Your task to perform on an android device: What's the weather going to be tomorrow? Image 0: 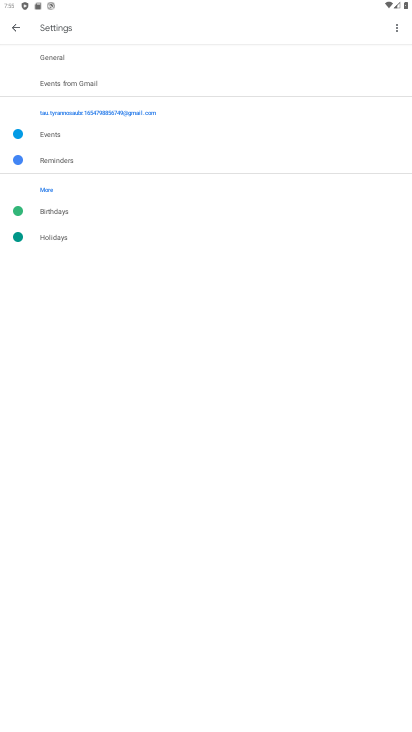
Step 0: drag from (257, 627) to (202, 40)
Your task to perform on an android device: What's the weather going to be tomorrow? Image 1: 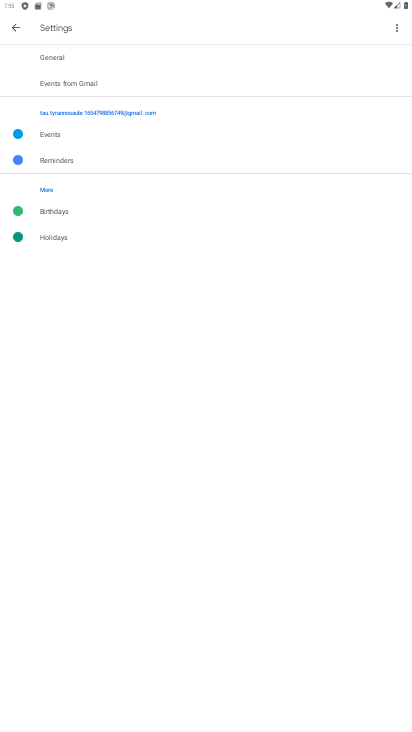
Step 1: press home button
Your task to perform on an android device: What's the weather going to be tomorrow? Image 2: 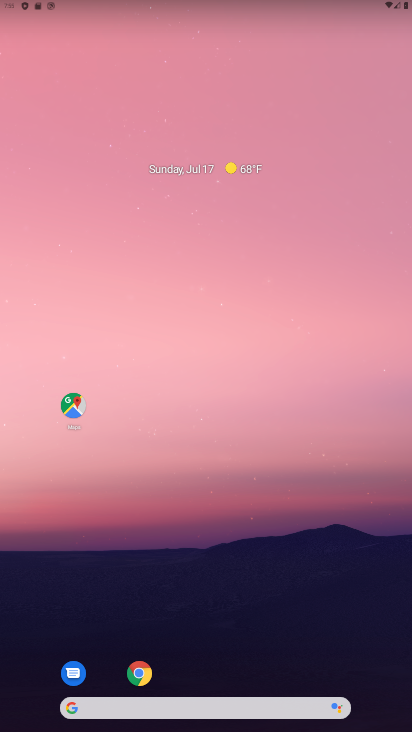
Step 2: drag from (253, 660) to (258, 2)
Your task to perform on an android device: What's the weather going to be tomorrow? Image 3: 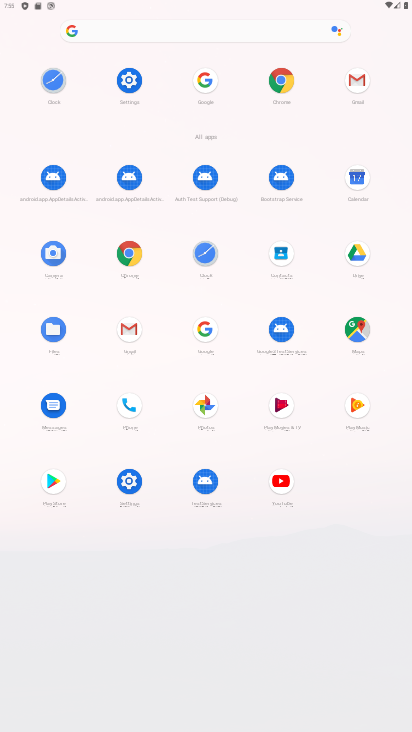
Step 3: click (207, 326)
Your task to perform on an android device: What's the weather going to be tomorrow? Image 4: 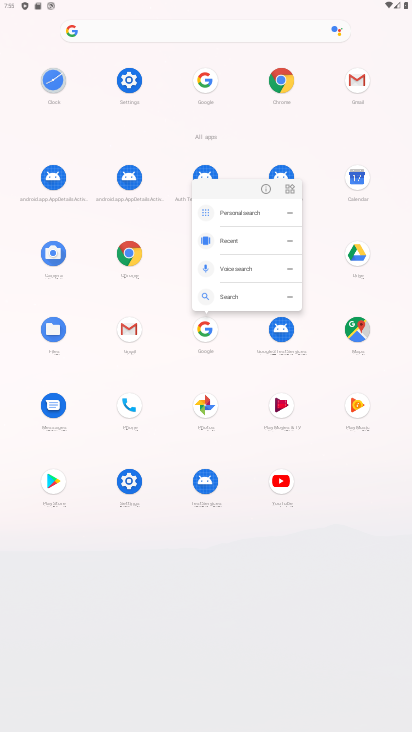
Step 4: click (207, 325)
Your task to perform on an android device: What's the weather going to be tomorrow? Image 5: 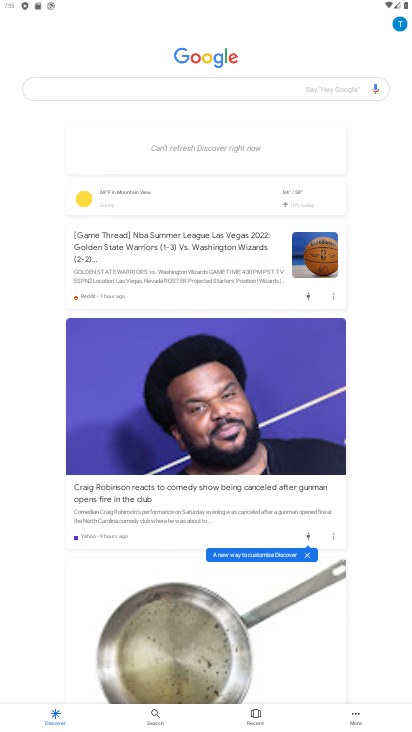
Step 5: click (146, 187)
Your task to perform on an android device: What's the weather going to be tomorrow? Image 6: 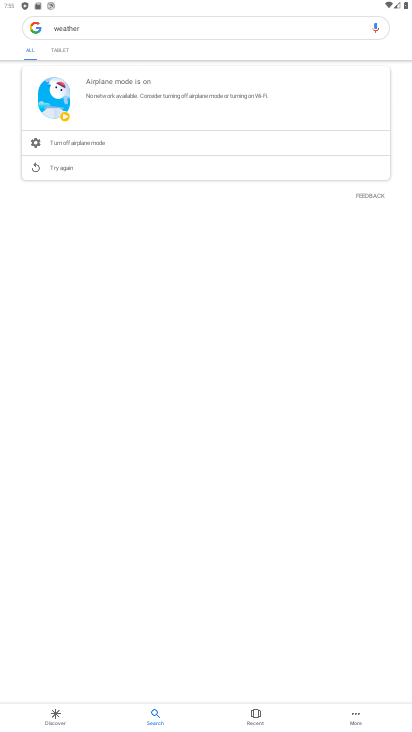
Step 6: task complete